Your task to perform on an android device: What's the latest video from Gameranx? Image 0: 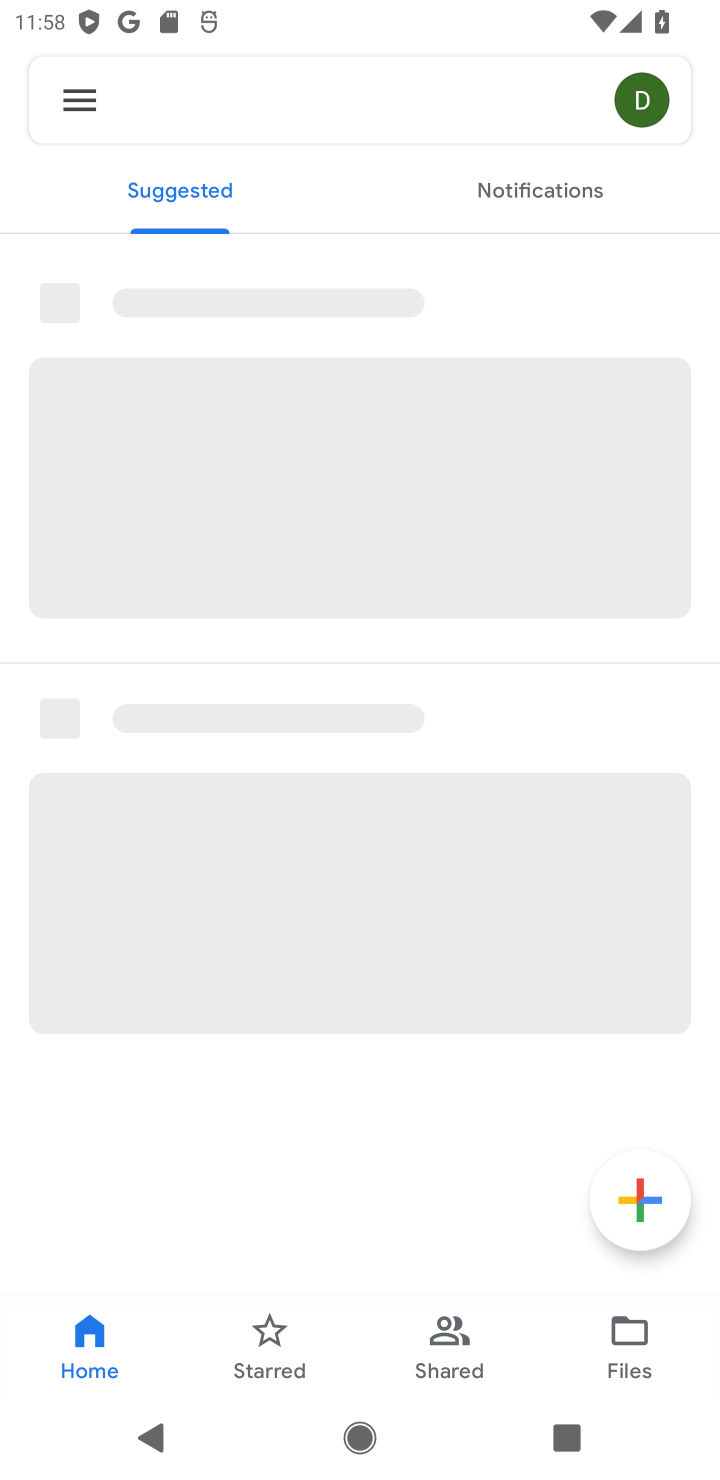
Step 0: press home button
Your task to perform on an android device: What's the latest video from Gameranx? Image 1: 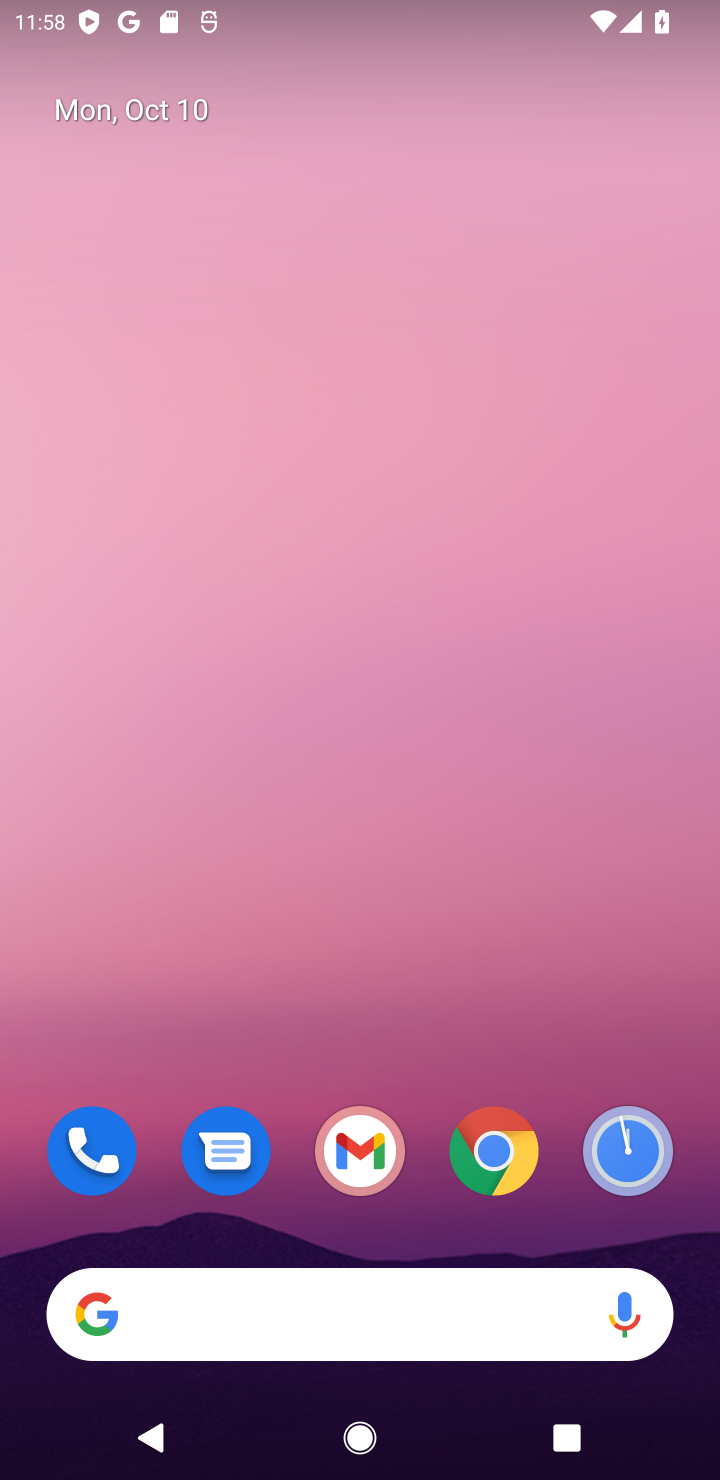
Step 1: click (347, 1280)
Your task to perform on an android device: What's the latest video from Gameranx? Image 2: 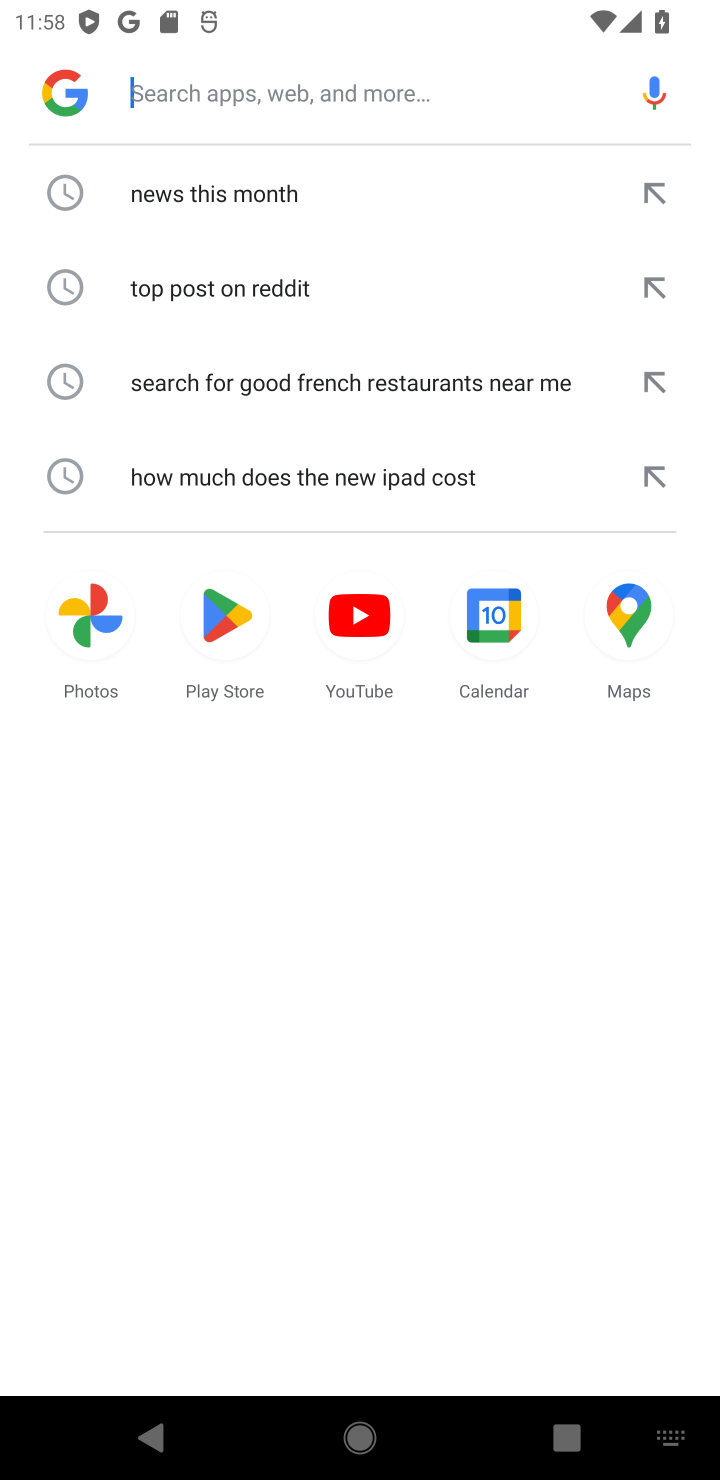
Step 2: type "What's the latest video from Gameranx?"
Your task to perform on an android device: What's the latest video from Gameranx? Image 3: 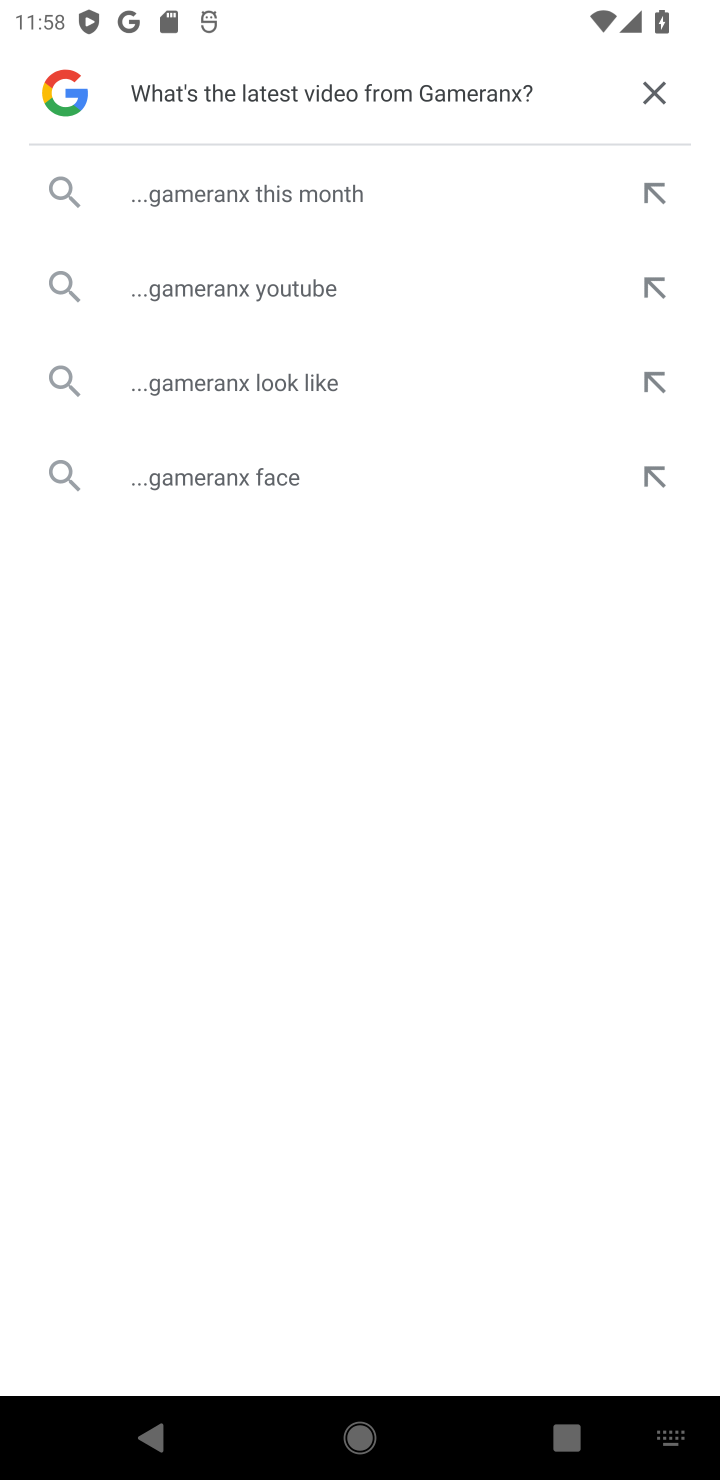
Step 3: click (174, 199)
Your task to perform on an android device: What's the latest video from Gameranx? Image 4: 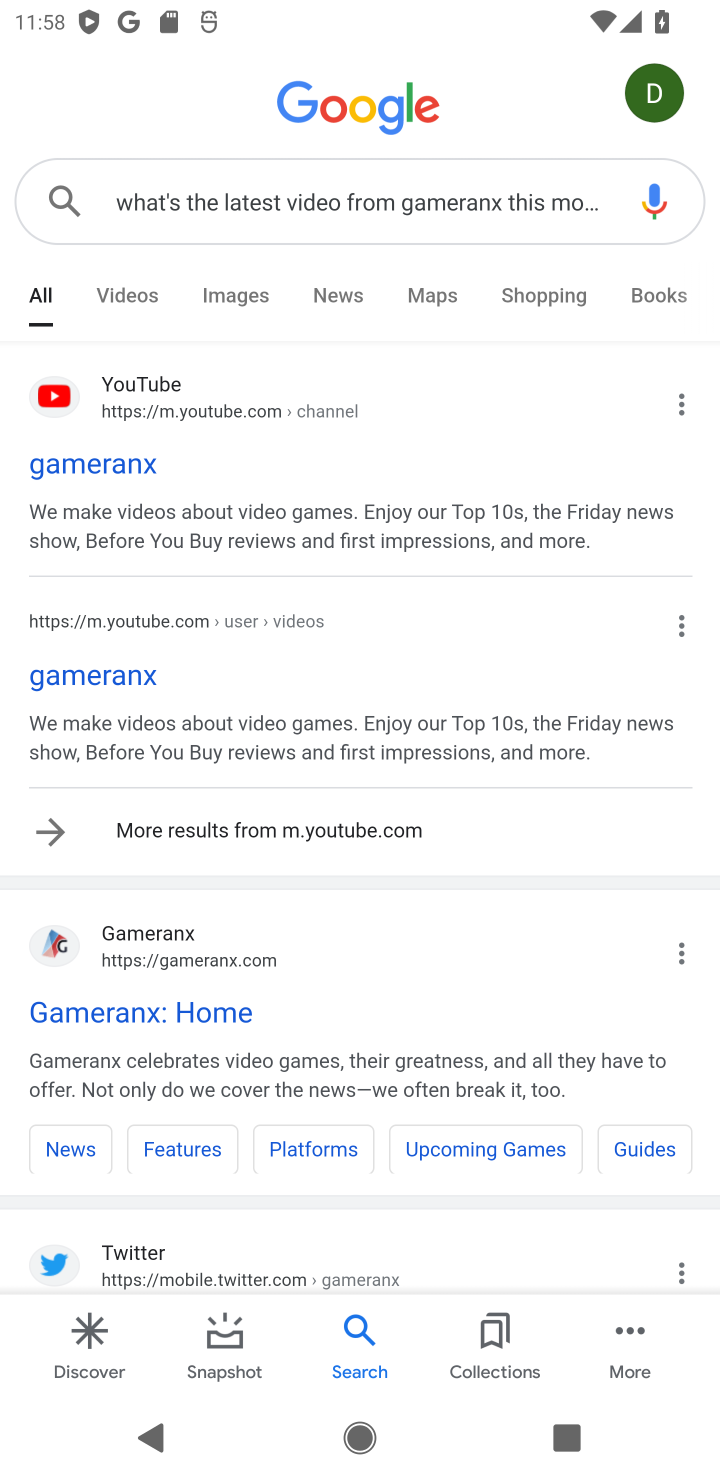
Step 4: click (106, 472)
Your task to perform on an android device: What's the latest video from Gameranx? Image 5: 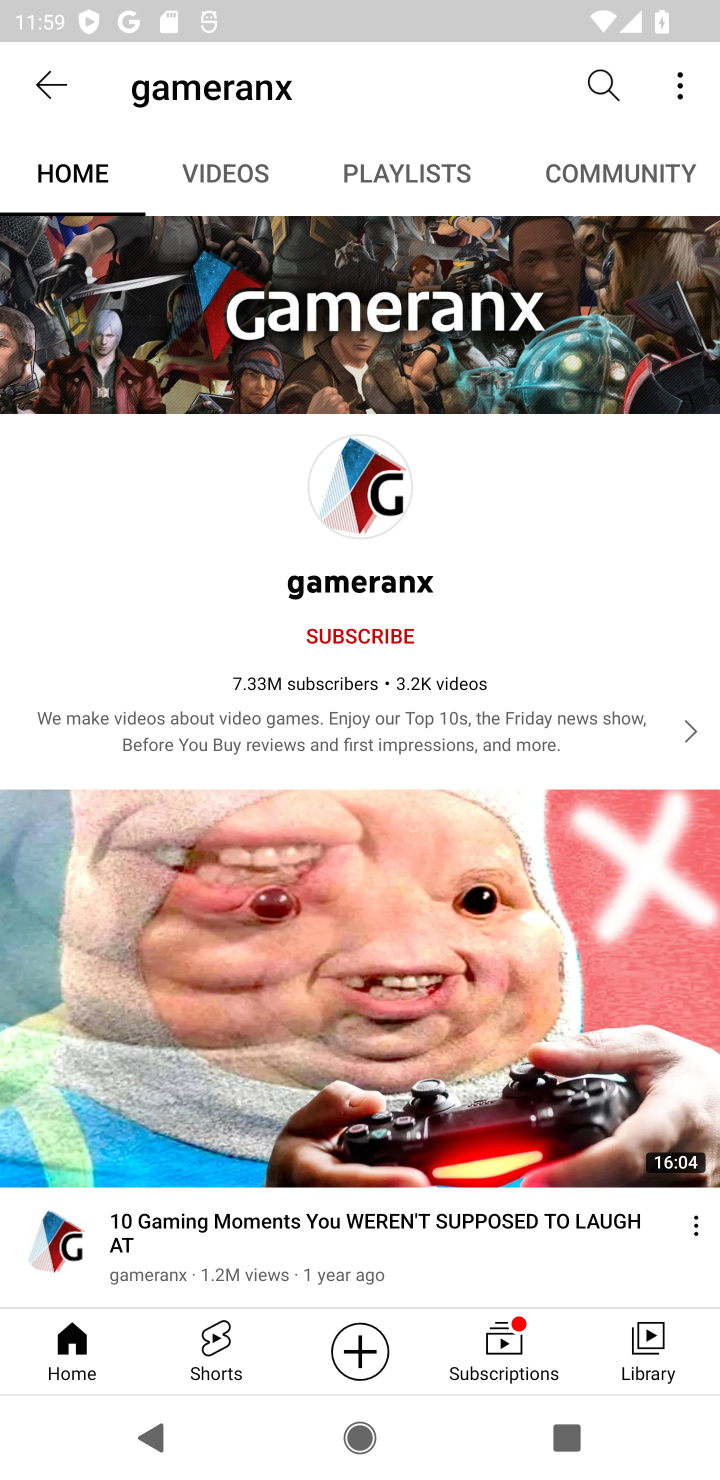
Step 5: click (283, 1019)
Your task to perform on an android device: What's the latest video from Gameranx? Image 6: 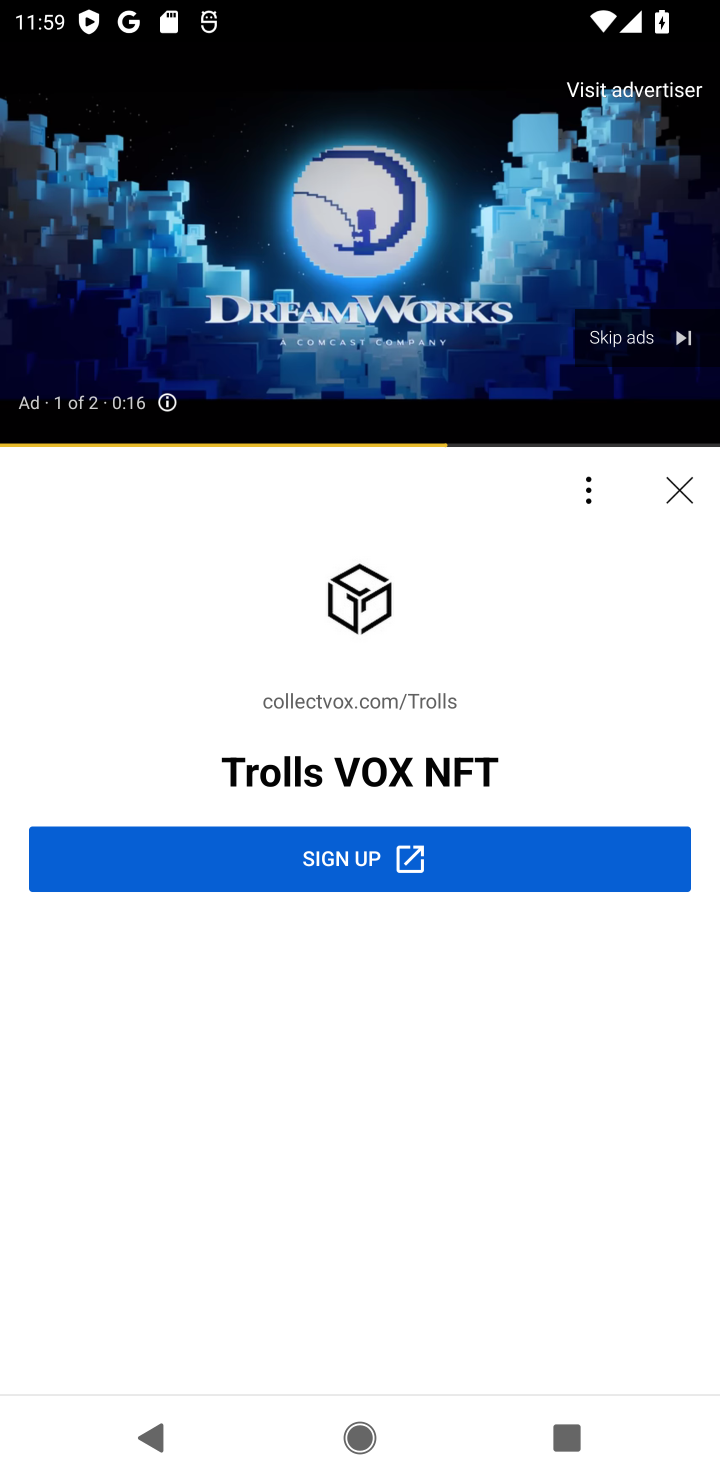
Step 6: click (627, 328)
Your task to perform on an android device: What's the latest video from Gameranx? Image 7: 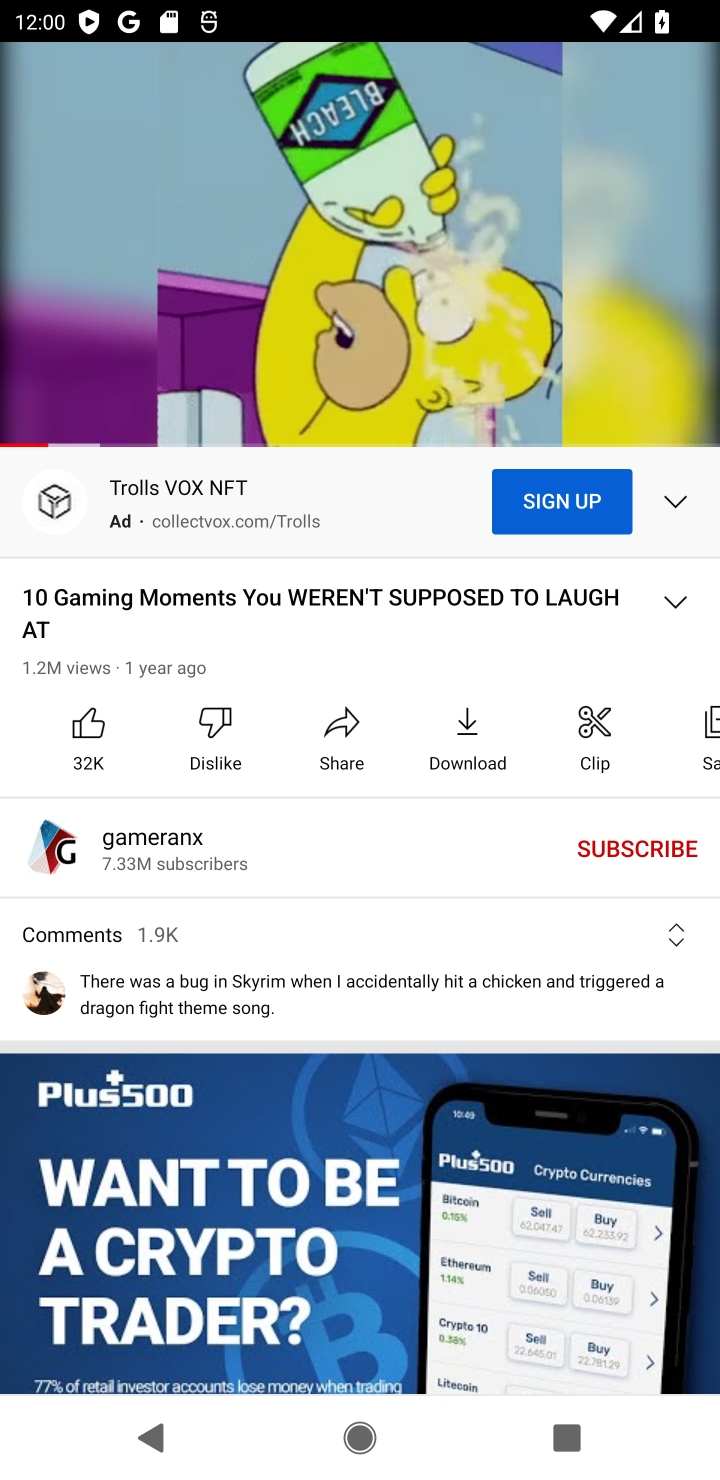
Step 7: task complete